Your task to perform on an android device: Open settings on Google Maps Image 0: 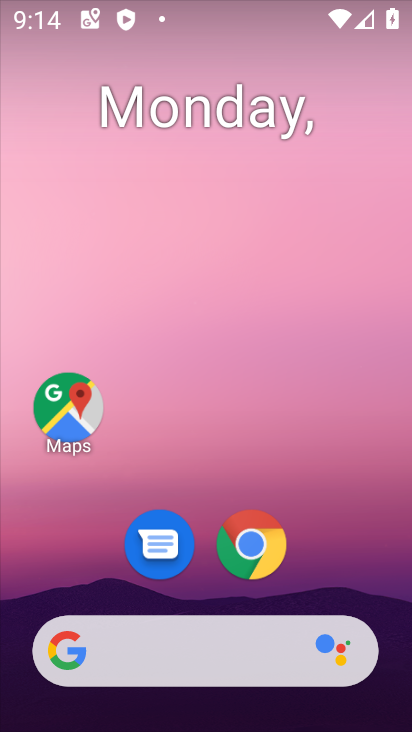
Step 0: click (71, 398)
Your task to perform on an android device: Open settings on Google Maps Image 1: 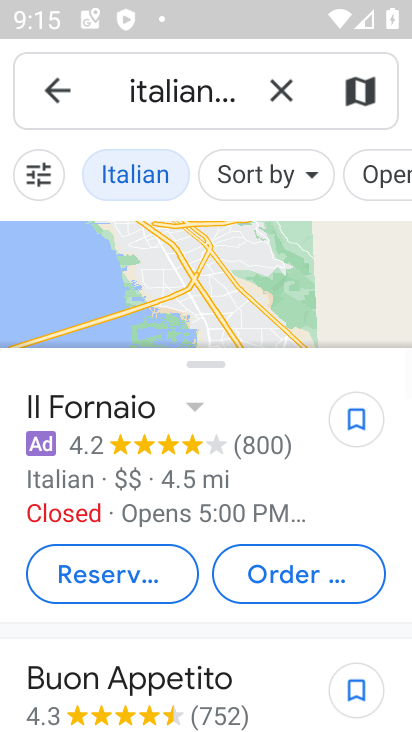
Step 1: click (50, 91)
Your task to perform on an android device: Open settings on Google Maps Image 2: 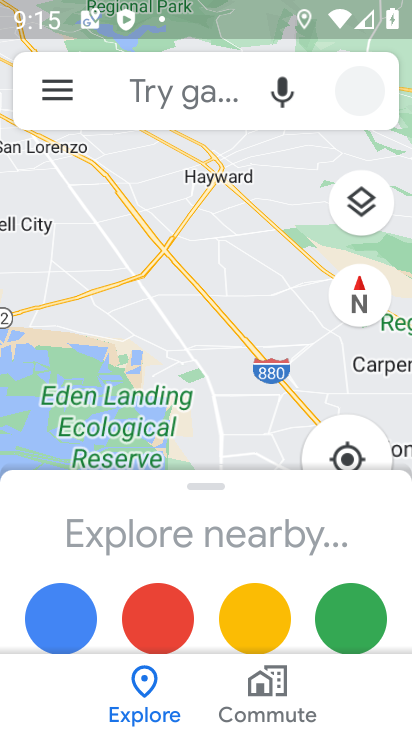
Step 2: click (44, 90)
Your task to perform on an android device: Open settings on Google Maps Image 3: 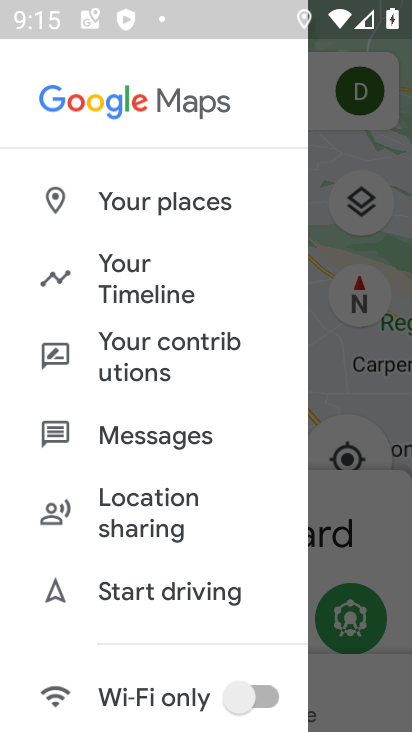
Step 3: drag from (218, 615) to (215, 28)
Your task to perform on an android device: Open settings on Google Maps Image 4: 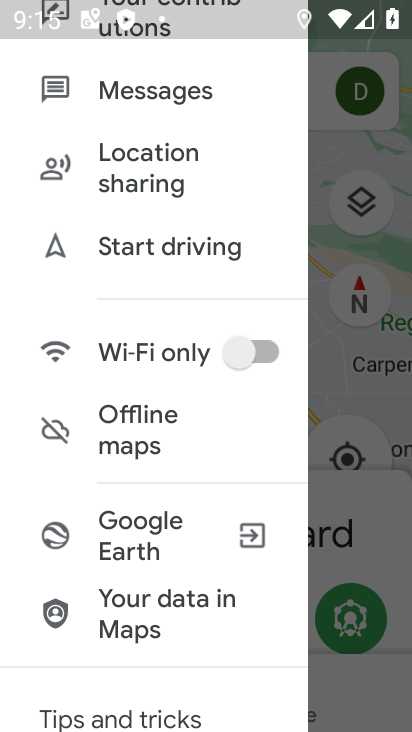
Step 4: drag from (218, 624) to (192, 176)
Your task to perform on an android device: Open settings on Google Maps Image 5: 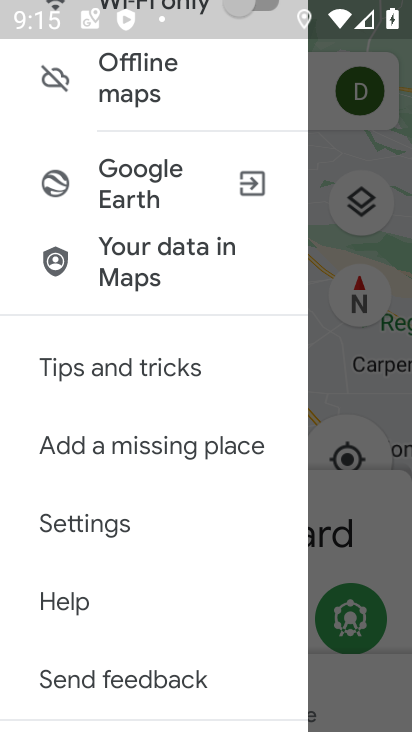
Step 5: click (62, 518)
Your task to perform on an android device: Open settings on Google Maps Image 6: 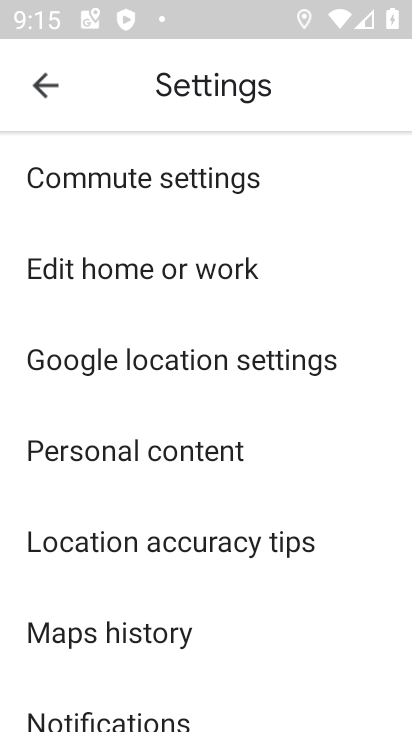
Step 6: task complete